Your task to perform on an android device: change the clock display to digital Image 0: 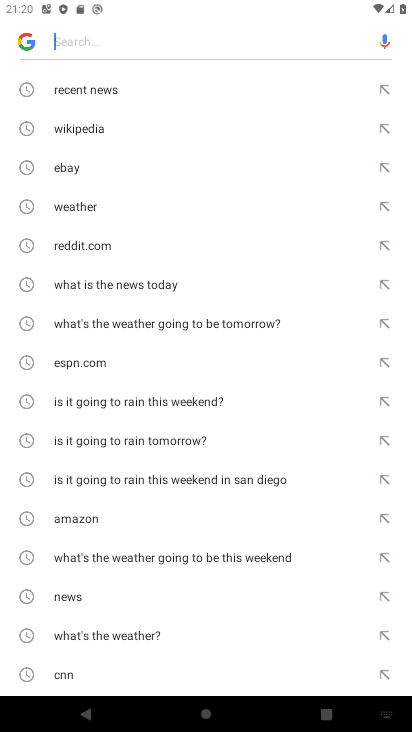
Step 0: press home button
Your task to perform on an android device: change the clock display to digital Image 1: 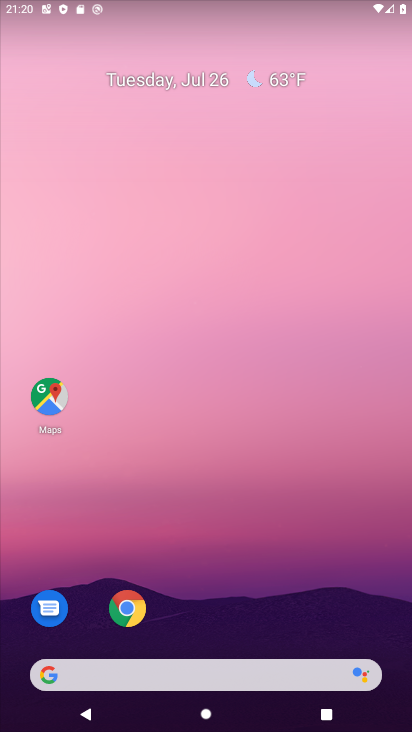
Step 1: drag from (41, 702) to (175, 182)
Your task to perform on an android device: change the clock display to digital Image 2: 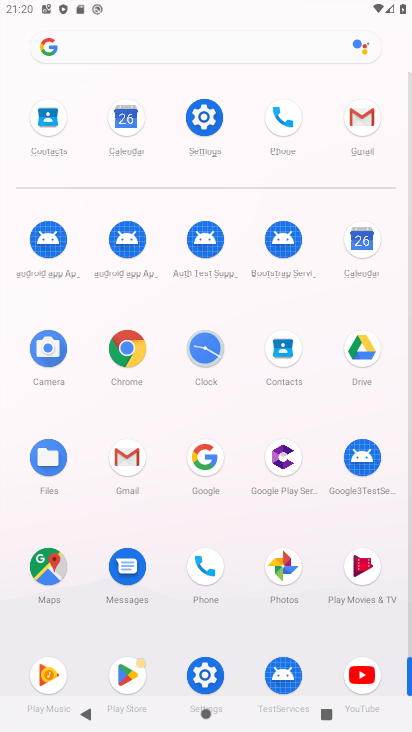
Step 2: click (215, 347)
Your task to perform on an android device: change the clock display to digital Image 3: 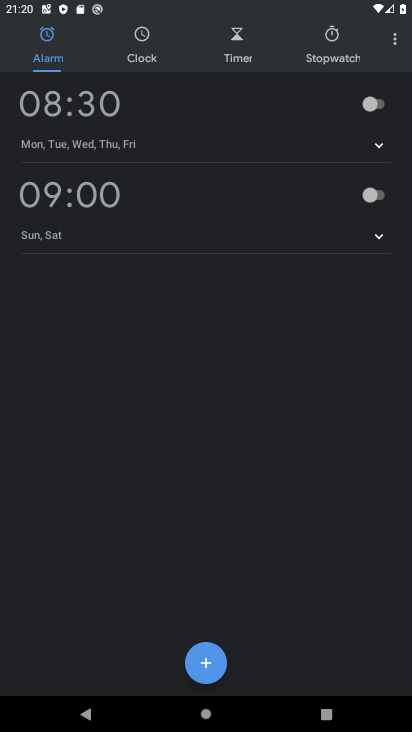
Step 3: click (129, 48)
Your task to perform on an android device: change the clock display to digital Image 4: 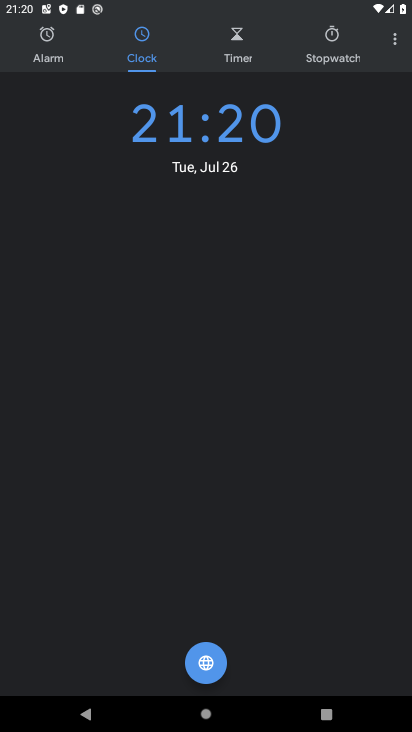
Step 4: click (393, 40)
Your task to perform on an android device: change the clock display to digital Image 5: 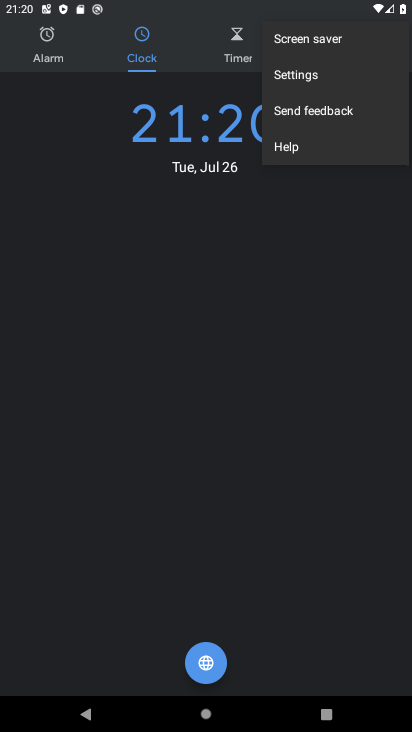
Step 5: click (313, 74)
Your task to perform on an android device: change the clock display to digital Image 6: 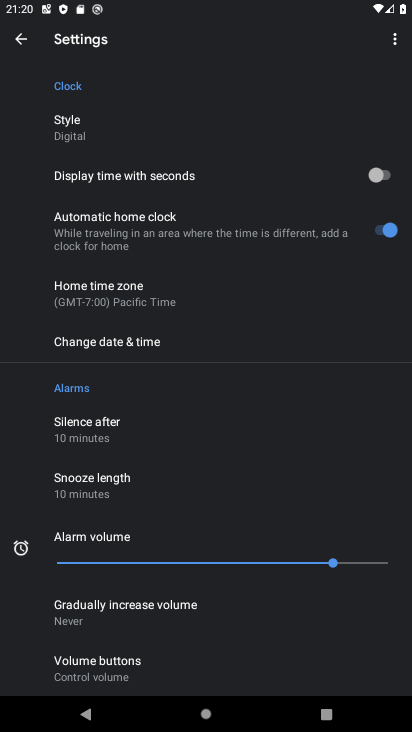
Step 6: task complete